Your task to perform on an android device: Open a new incognito tab in Chrome Image 0: 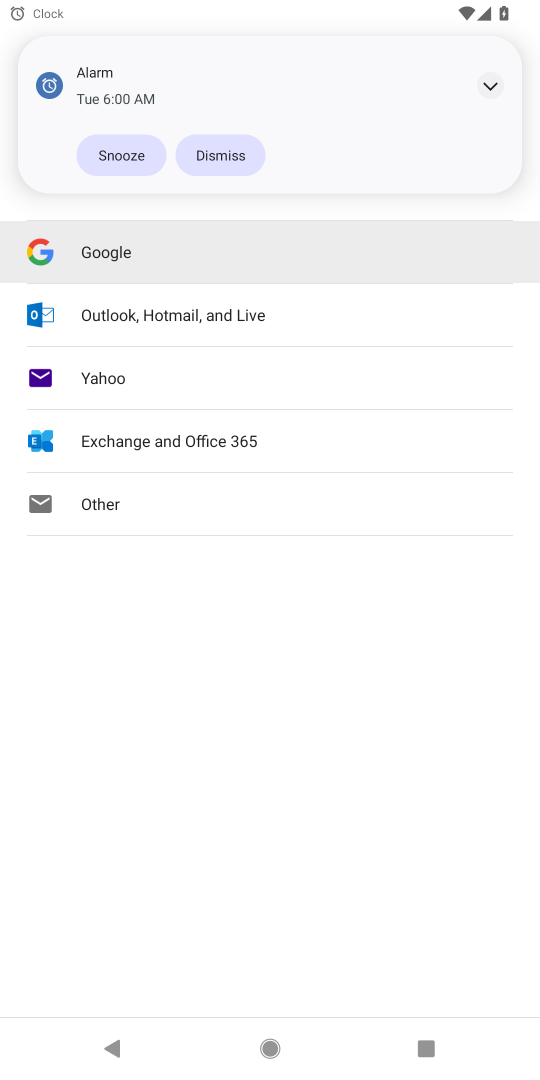
Step 0: press home button
Your task to perform on an android device: Open a new incognito tab in Chrome Image 1: 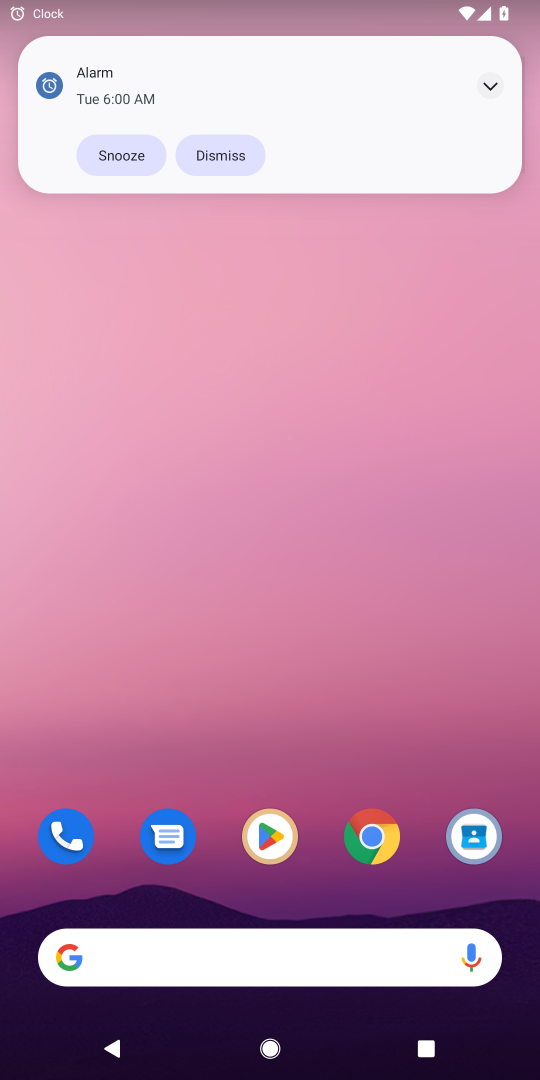
Step 1: click (222, 168)
Your task to perform on an android device: Open a new incognito tab in Chrome Image 2: 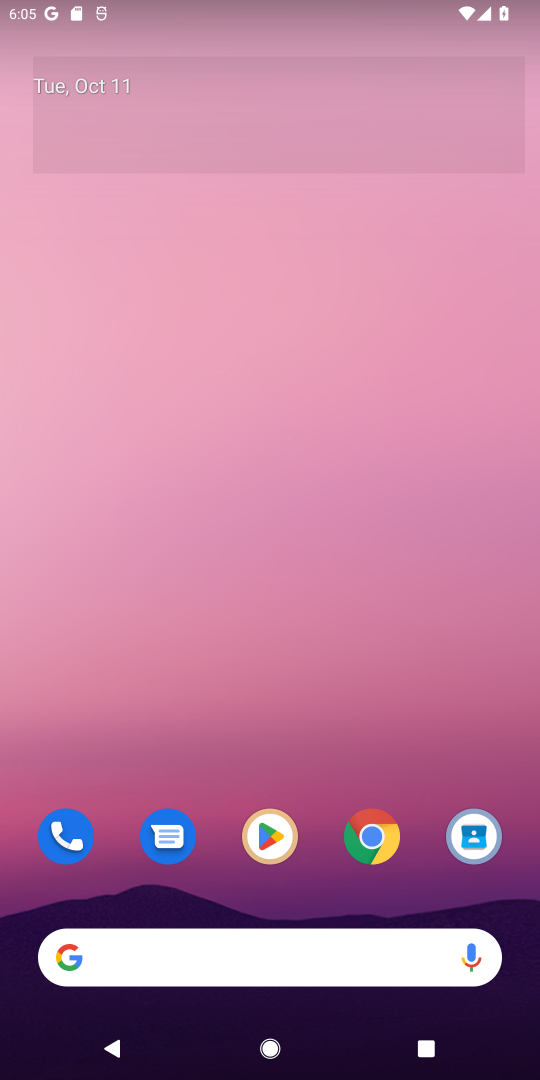
Step 2: click (374, 832)
Your task to perform on an android device: Open a new incognito tab in Chrome Image 3: 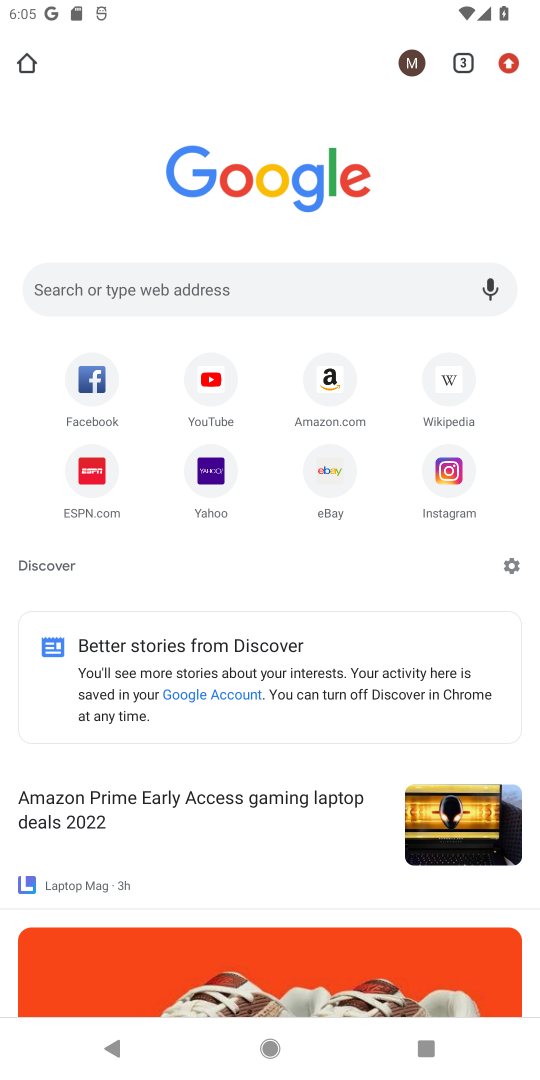
Step 3: task complete